Your task to perform on an android device: toggle sleep mode Image 0: 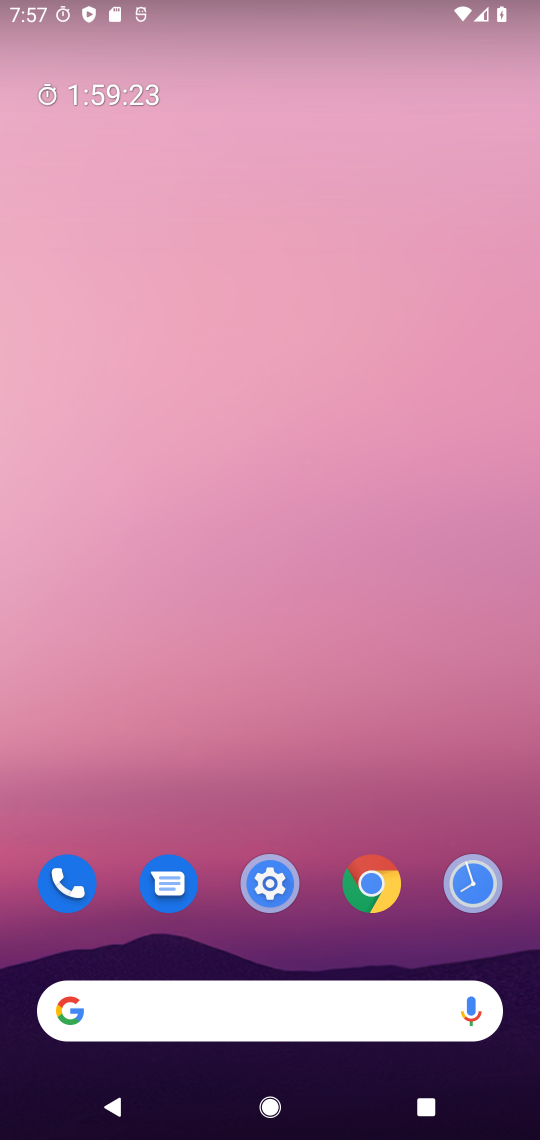
Step 0: click (270, 875)
Your task to perform on an android device: toggle sleep mode Image 1: 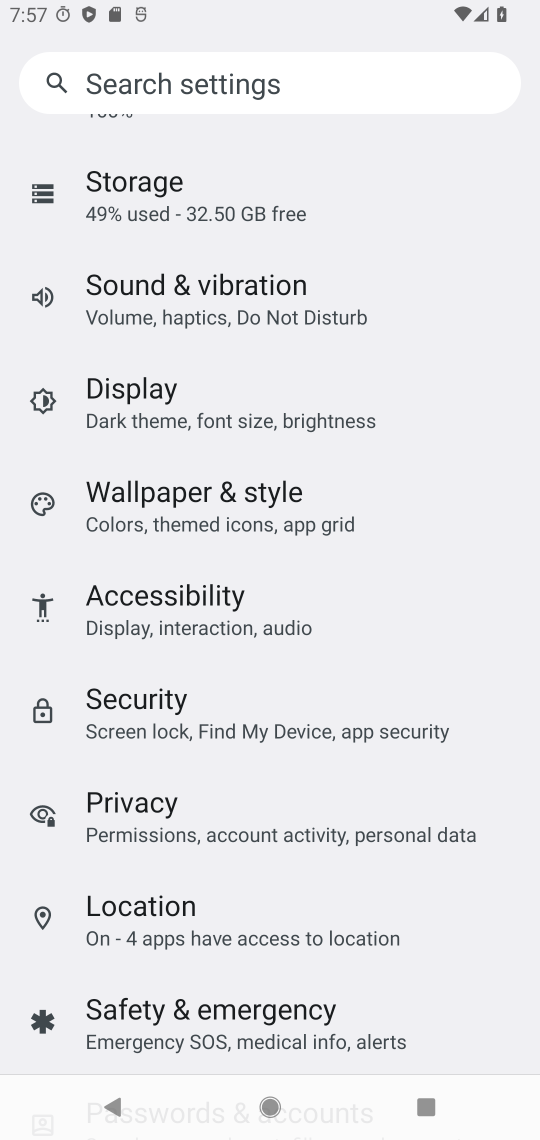
Step 1: click (180, 398)
Your task to perform on an android device: toggle sleep mode Image 2: 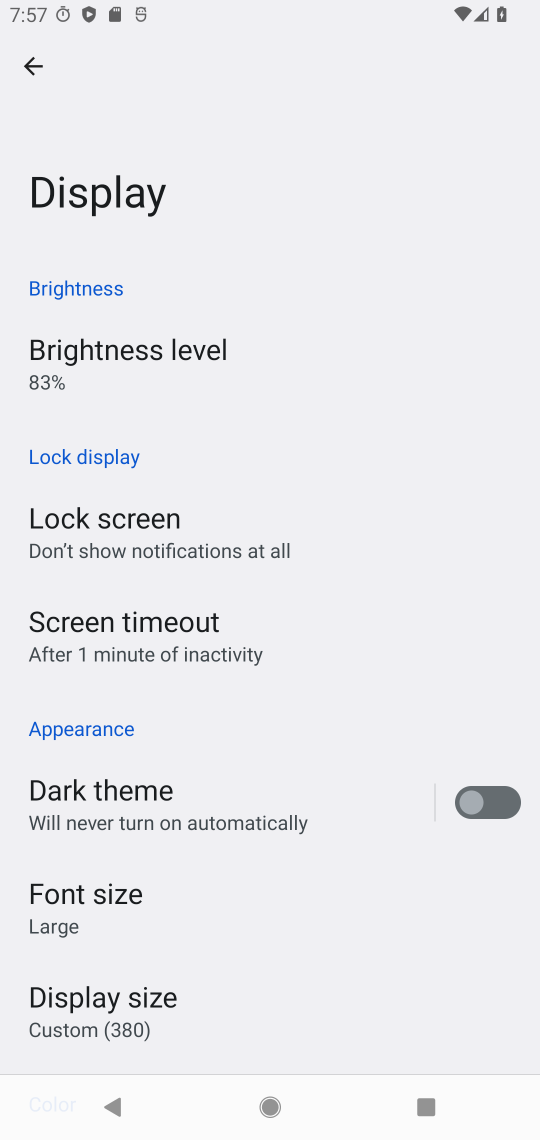
Step 2: drag from (233, 897) to (242, 428)
Your task to perform on an android device: toggle sleep mode Image 3: 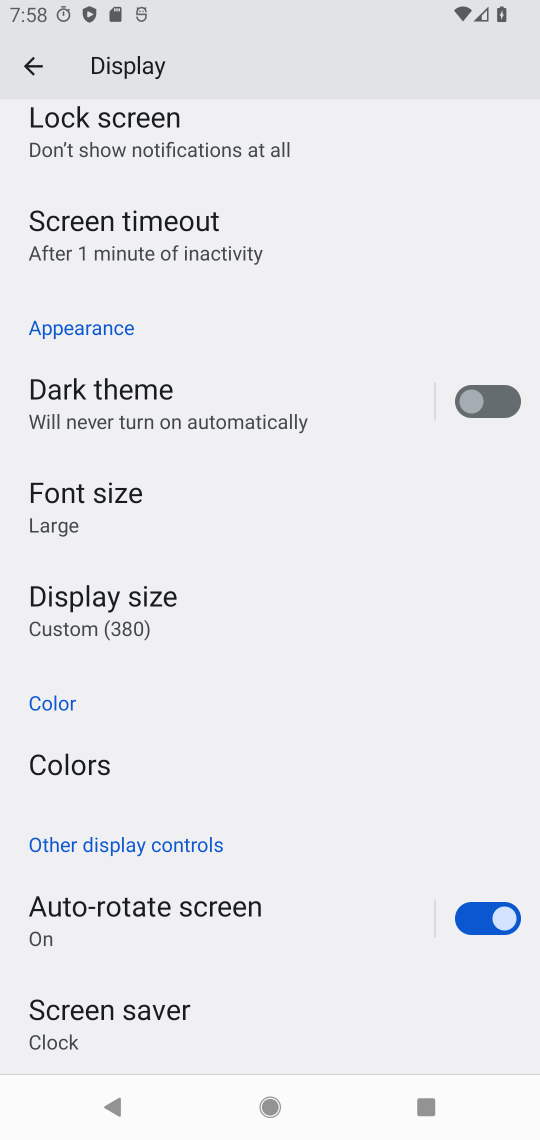
Step 3: click (211, 247)
Your task to perform on an android device: toggle sleep mode Image 4: 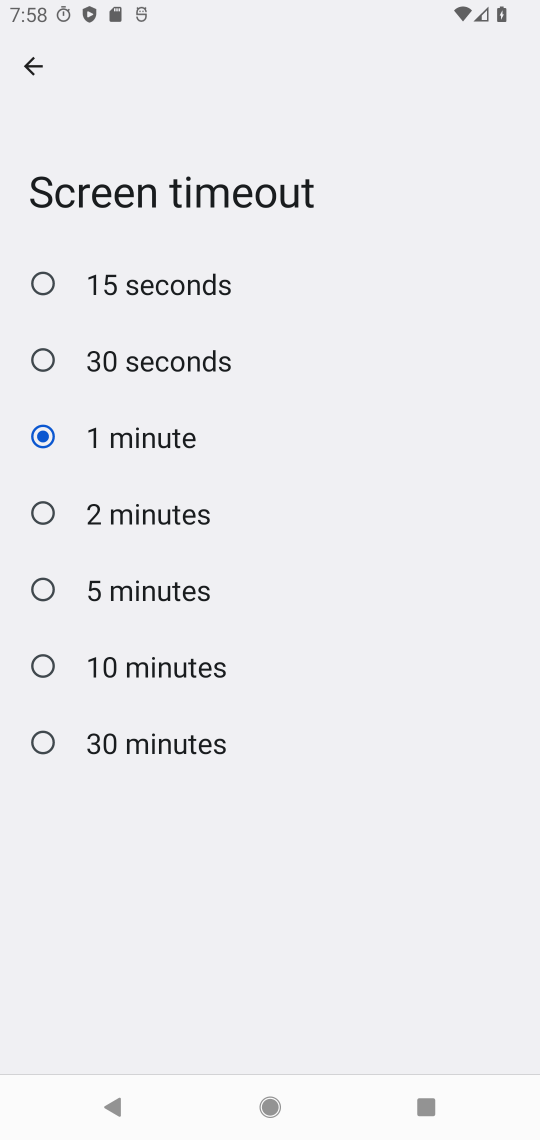
Step 4: click (122, 687)
Your task to perform on an android device: toggle sleep mode Image 5: 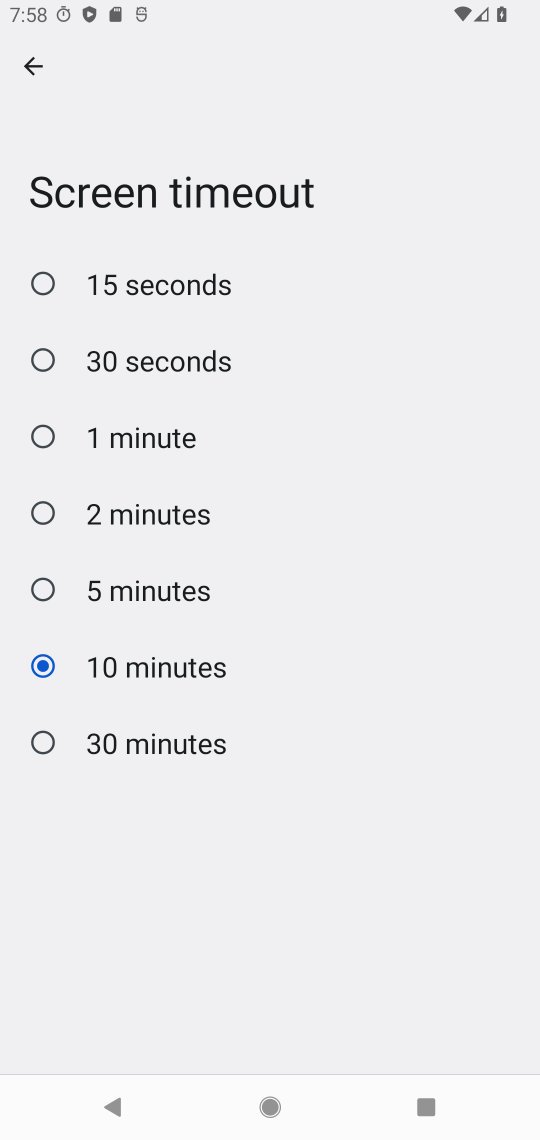
Step 5: task complete